Your task to perform on an android device: Clear the cart on newegg. Search for logitech g903 on newegg, select the first entry, and add it to the cart. Image 0: 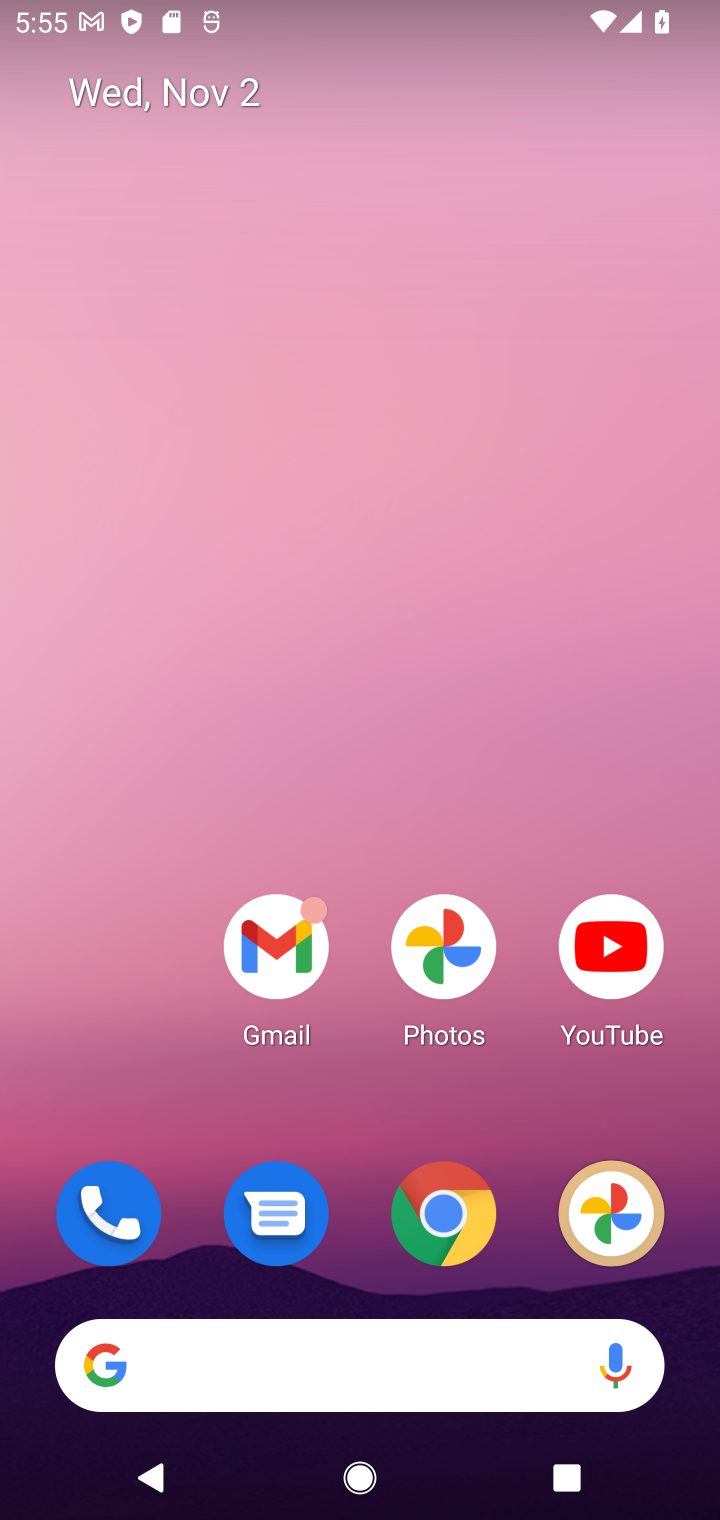
Step 0: click (442, 1216)
Your task to perform on an android device: Clear the cart on newegg. Search for logitech g903 on newegg, select the first entry, and add it to the cart. Image 1: 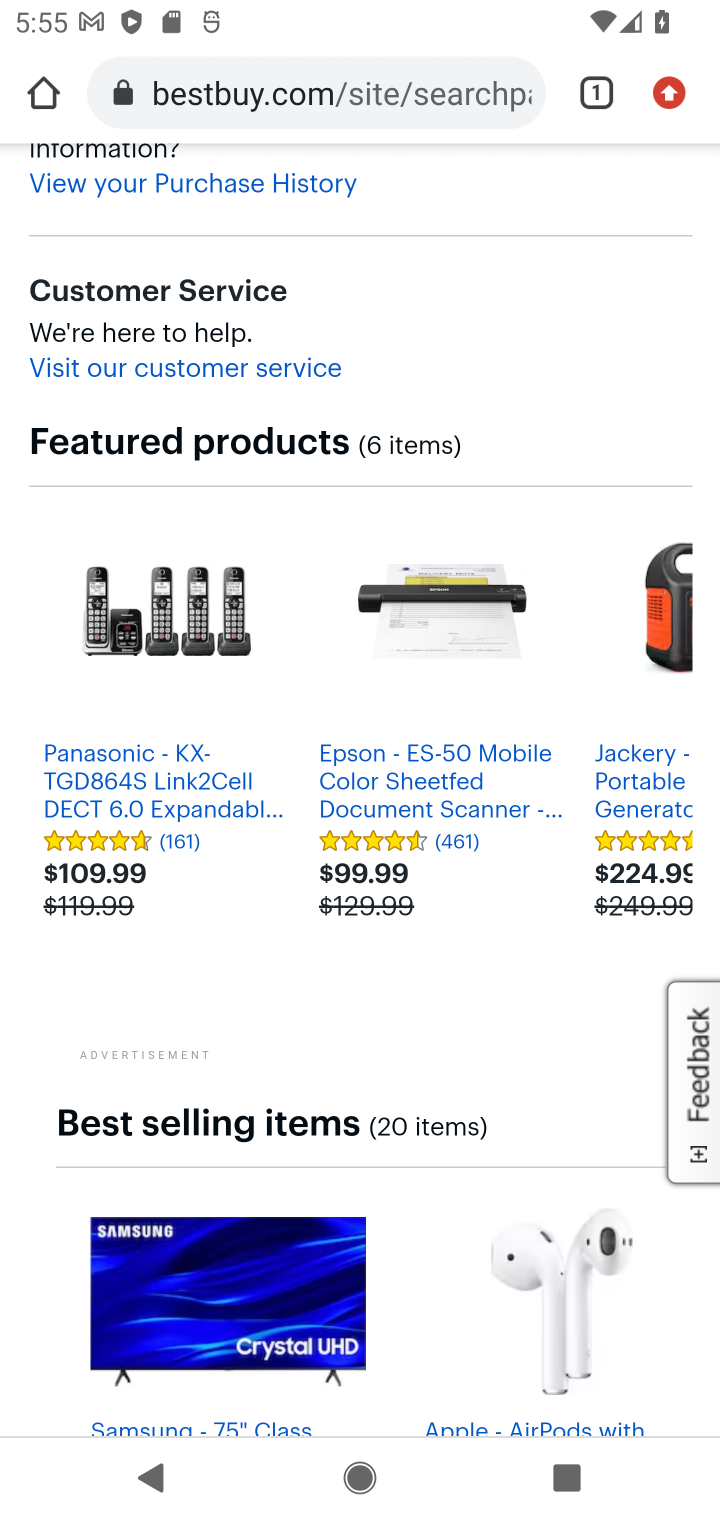
Step 1: click (354, 54)
Your task to perform on an android device: Clear the cart on newegg. Search for logitech g903 on newegg, select the first entry, and add it to the cart. Image 2: 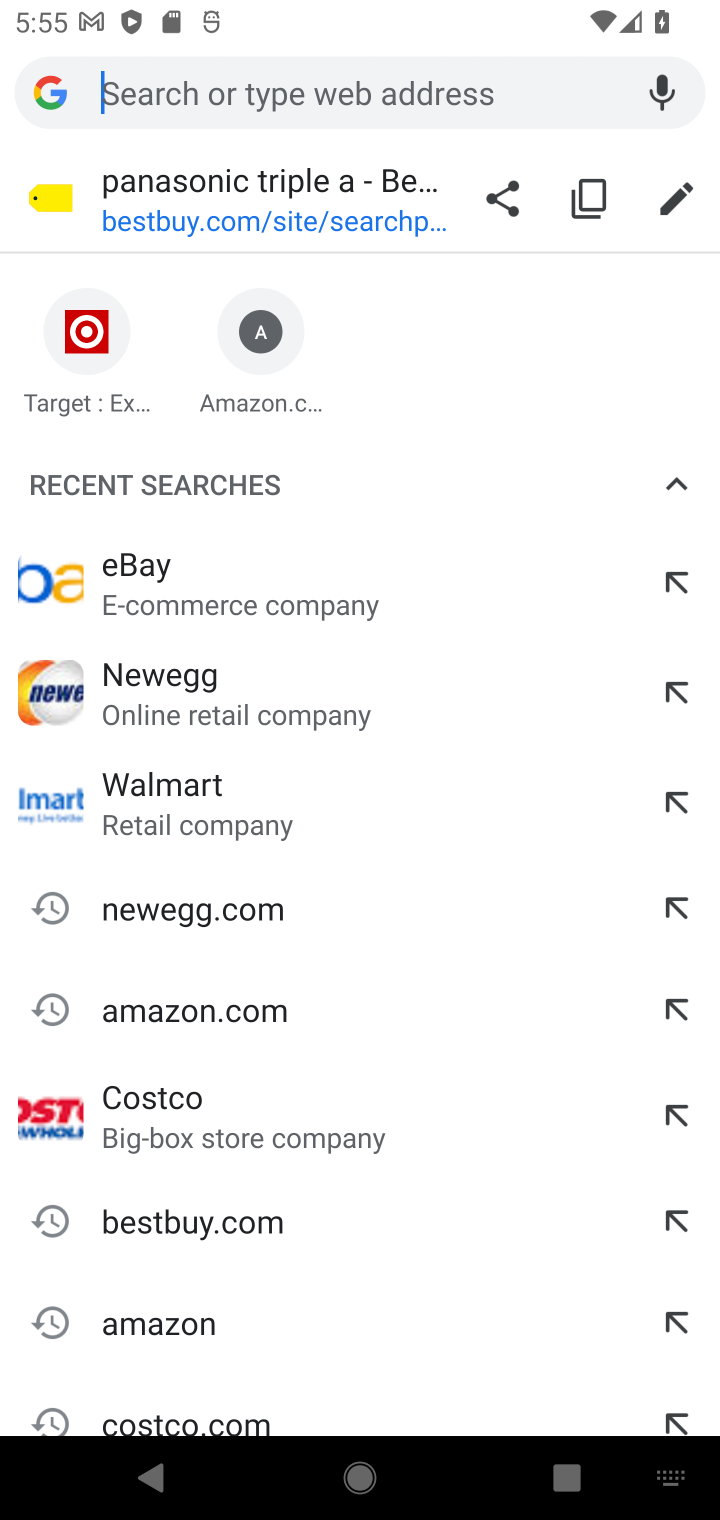
Step 2: click (171, 903)
Your task to perform on an android device: Clear the cart on newegg. Search for logitech g903 on newegg, select the first entry, and add it to the cart. Image 3: 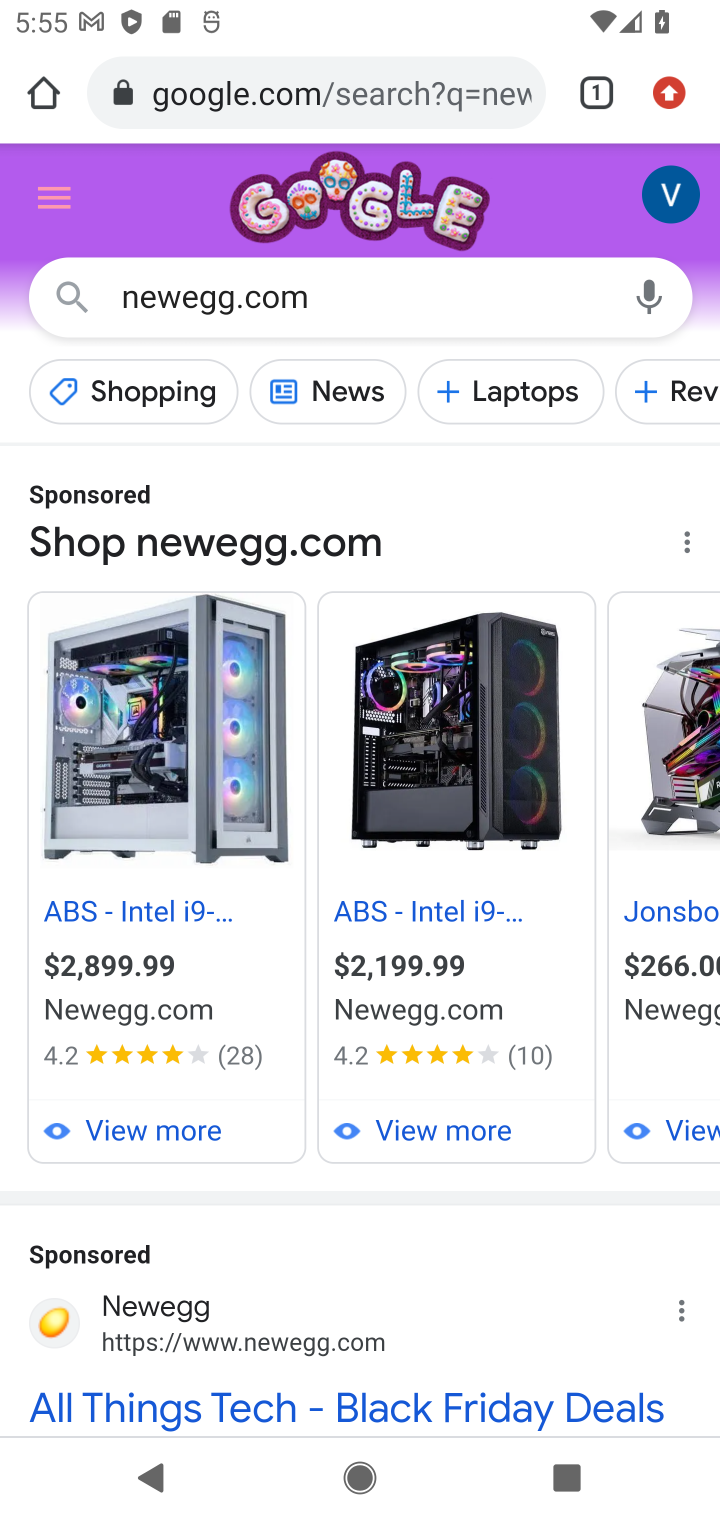
Step 3: drag from (374, 1236) to (365, 859)
Your task to perform on an android device: Clear the cart on newegg. Search for logitech g903 on newegg, select the first entry, and add it to the cart. Image 4: 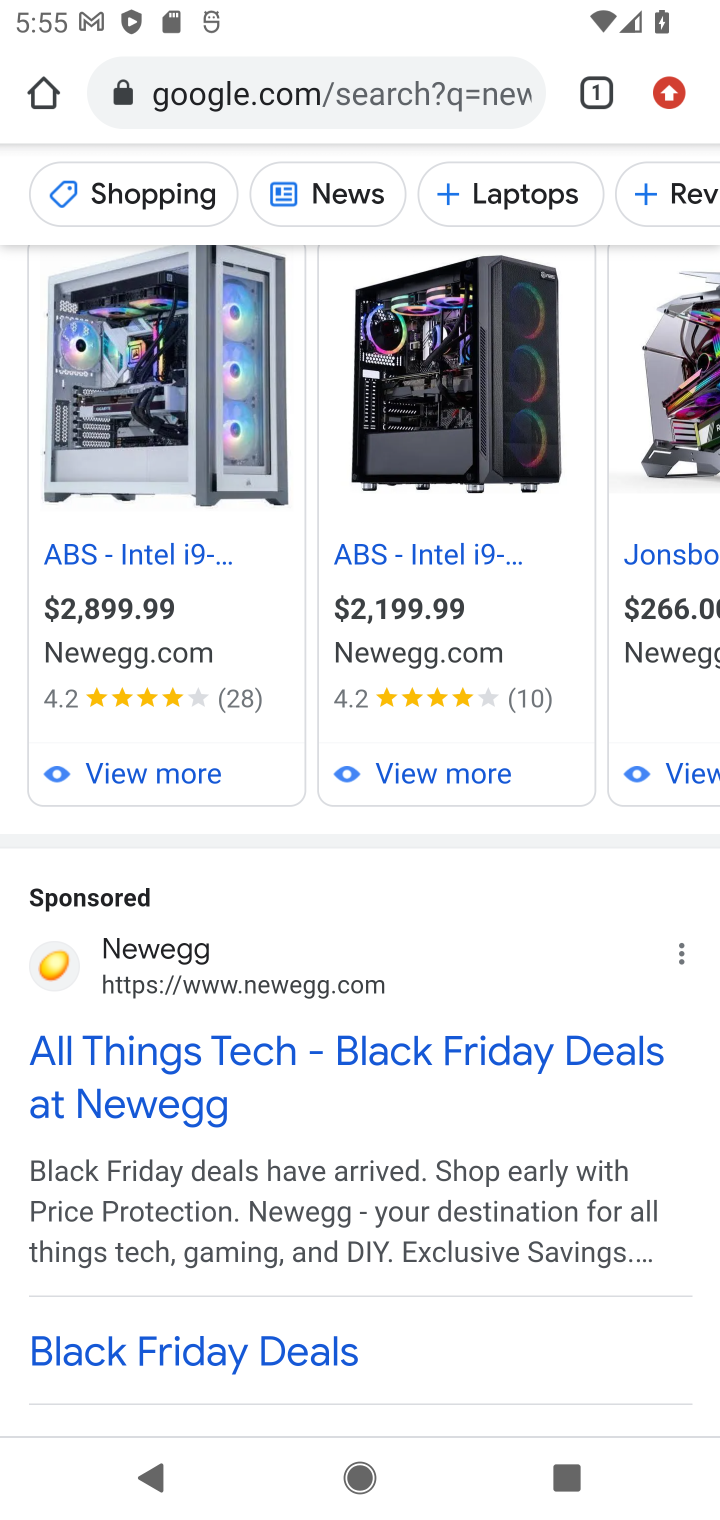
Step 4: click (113, 1068)
Your task to perform on an android device: Clear the cart on newegg. Search for logitech g903 on newegg, select the first entry, and add it to the cart. Image 5: 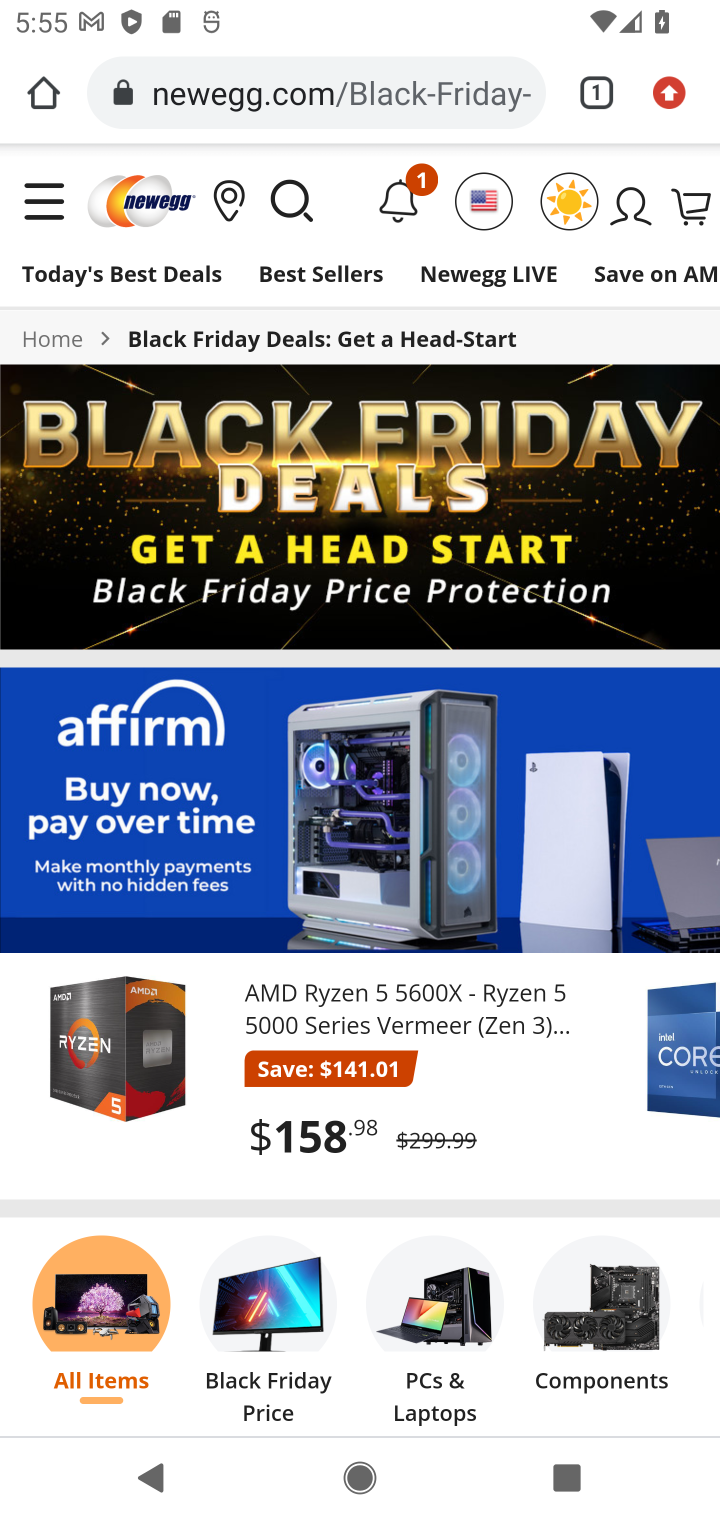
Step 5: click (692, 216)
Your task to perform on an android device: Clear the cart on newegg. Search for logitech g903 on newegg, select the first entry, and add it to the cart. Image 6: 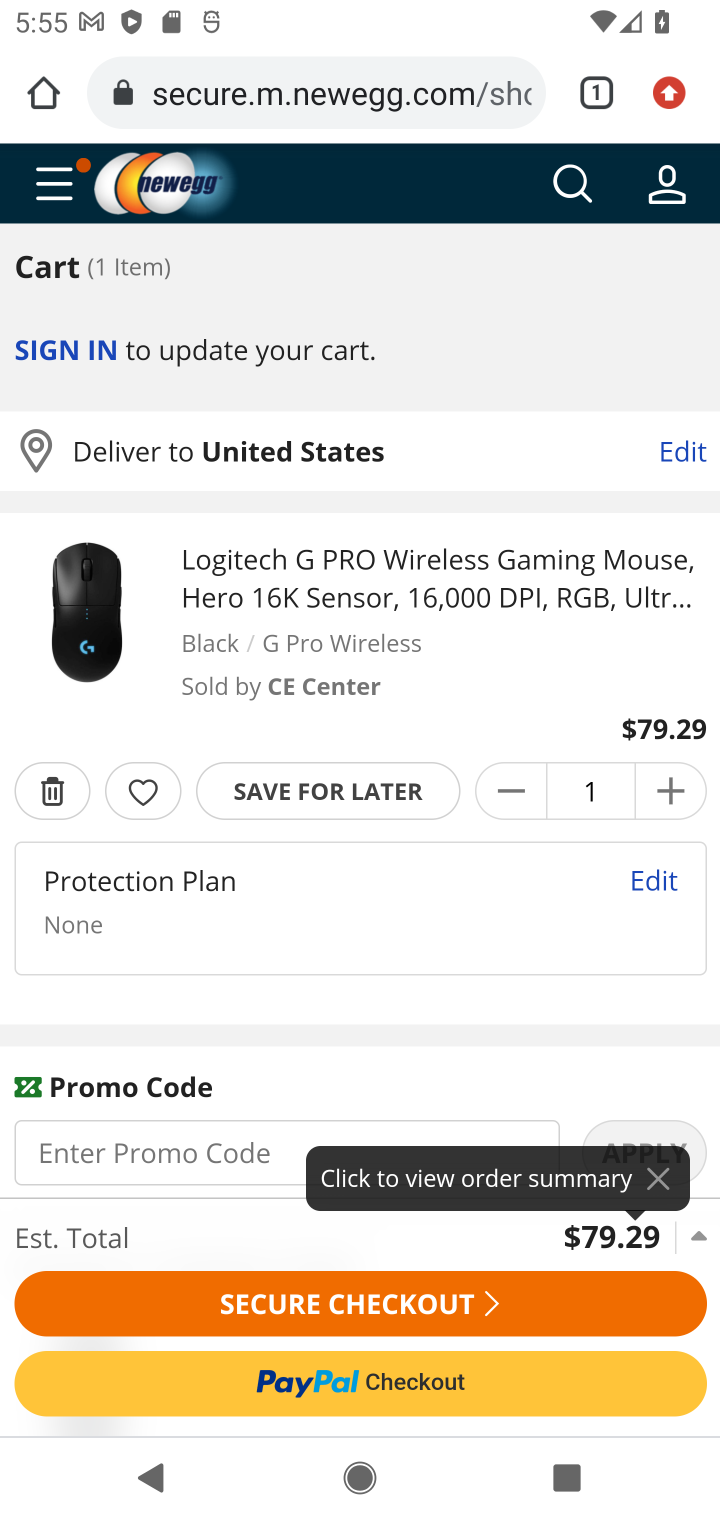
Step 6: click (42, 786)
Your task to perform on an android device: Clear the cart on newegg. Search for logitech g903 on newegg, select the first entry, and add it to the cart. Image 7: 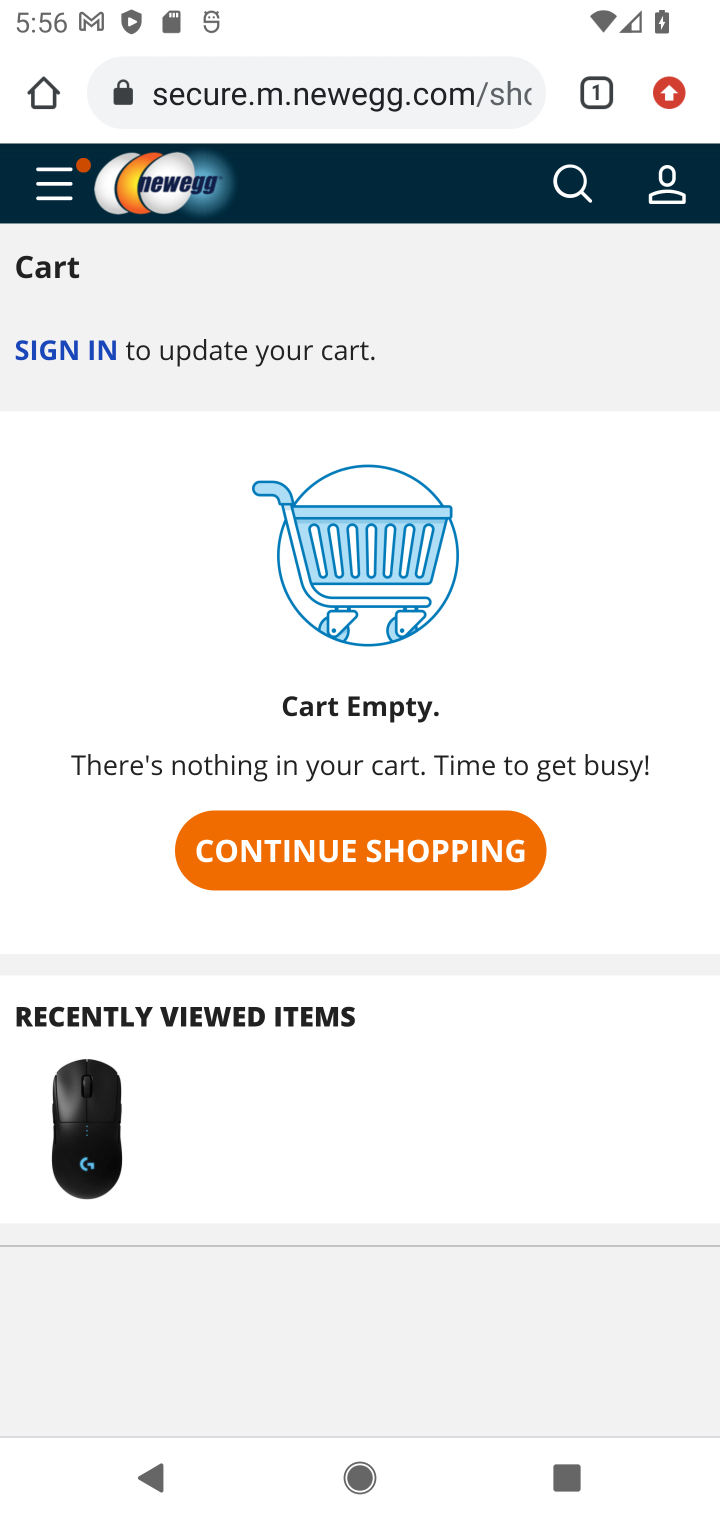
Step 7: click (579, 188)
Your task to perform on an android device: Clear the cart on newegg. Search for logitech g903 on newegg, select the first entry, and add it to the cart. Image 8: 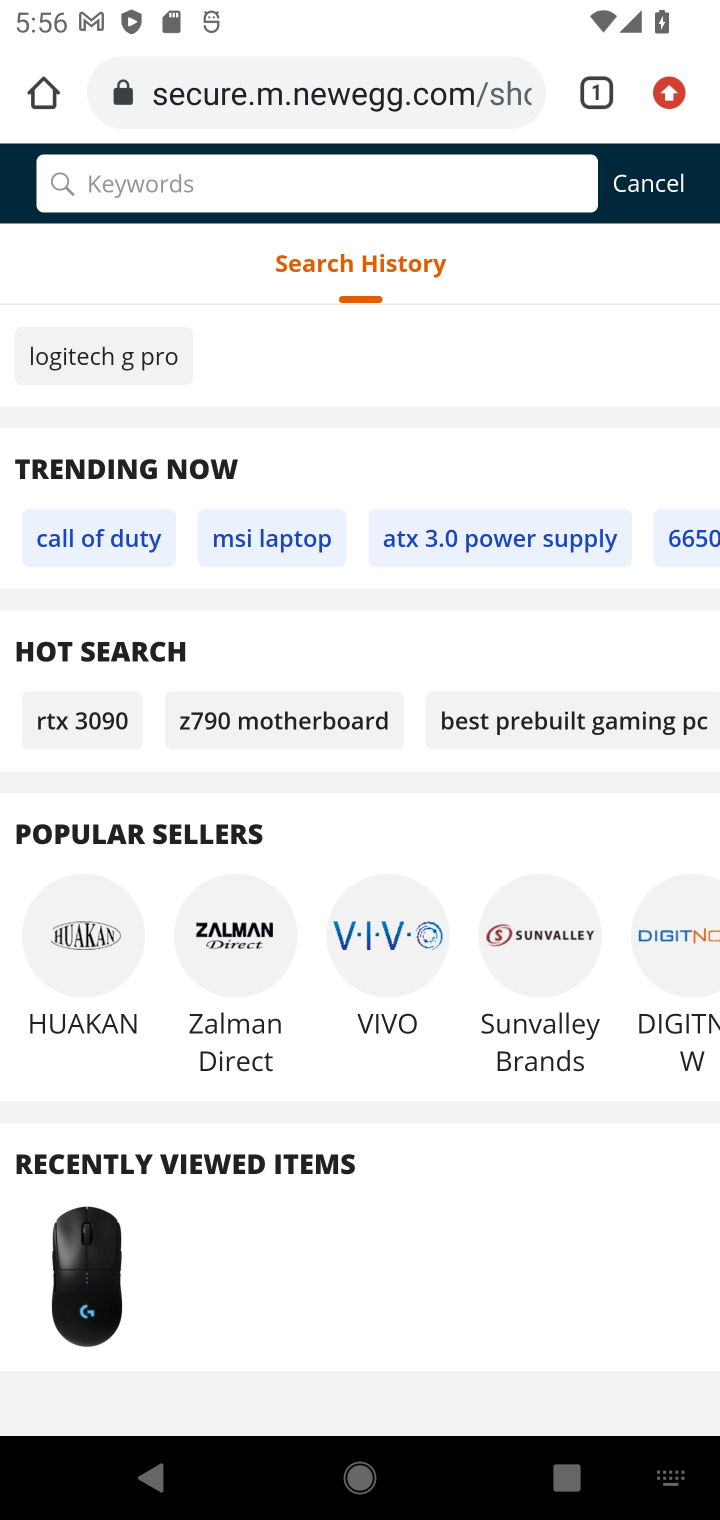
Step 8: type "logitech g903"
Your task to perform on an android device: Clear the cart on newegg. Search for logitech g903 on newegg, select the first entry, and add it to the cart. Image 9: 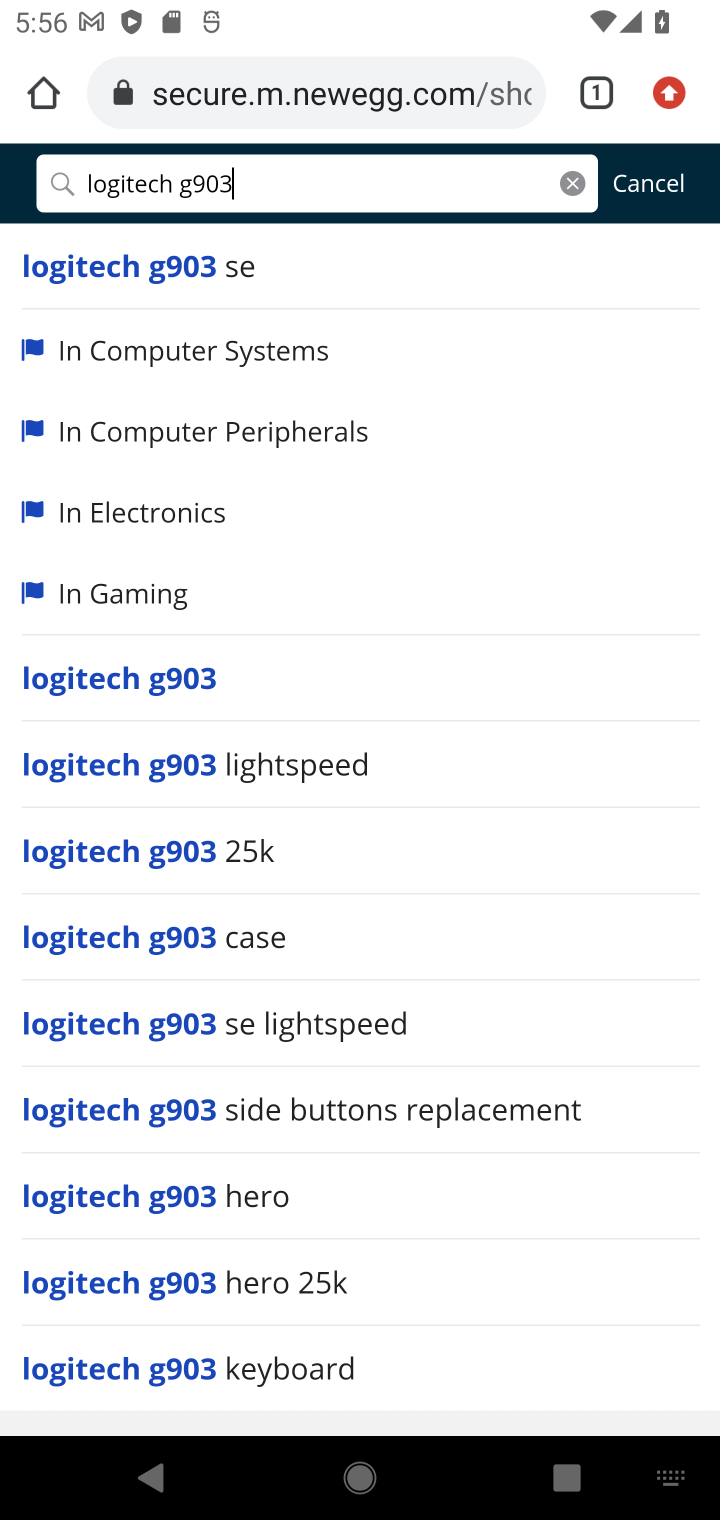
Step 9: click (131, 281)
Your task to perform on an android device: Clear the cart on newegg. Search for logitech g903 on newegg, select the first entry, and add it to the cart. Image 10: 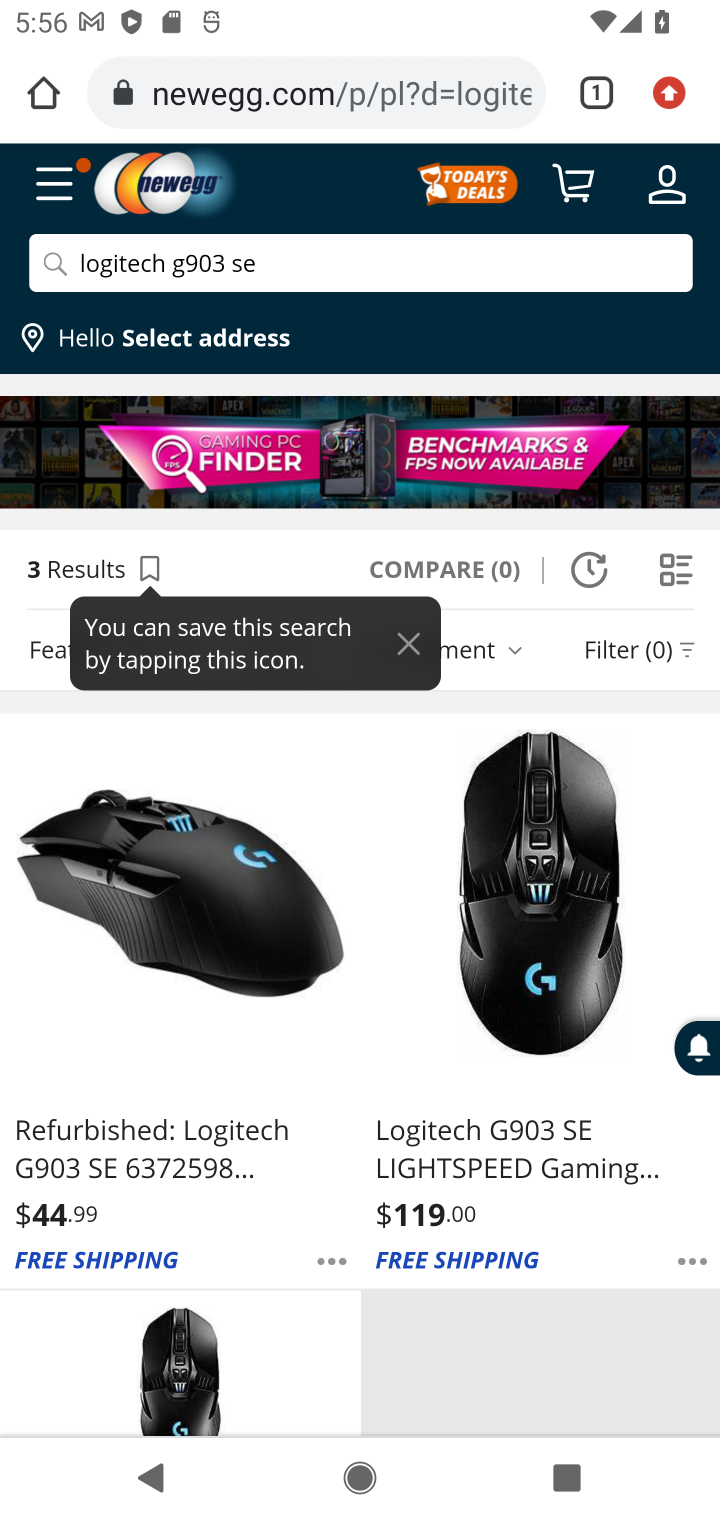
Step 10: click (454, 1155)
Your task to perform on an android device: Clear the cart on newegg. Search for logitech g903 on newegg, select the first entry, and add it to the cart. Image 11: 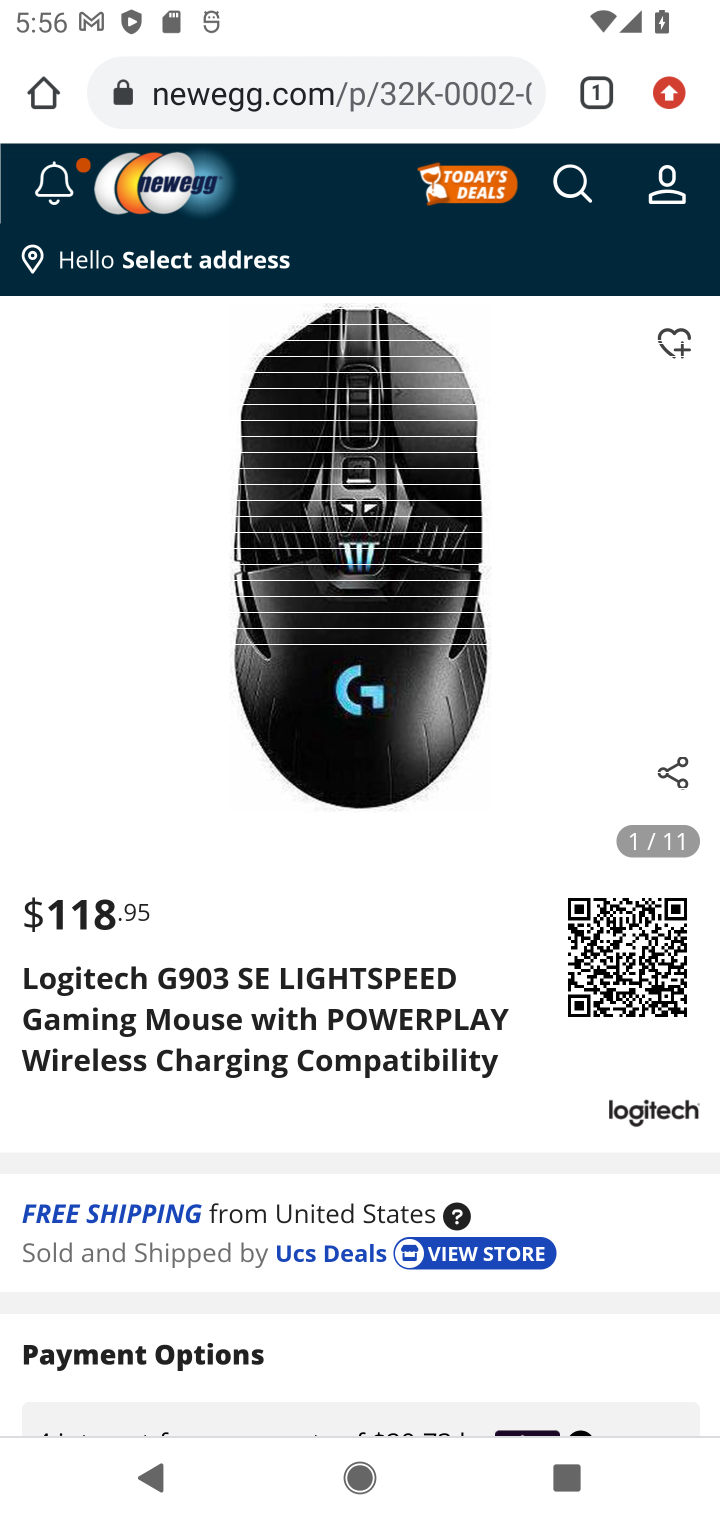
Step 11: click (332, 1388)
Your task to perform on an android device: Clear the cart on newegg. Search for logitech g903 on newegg, select the first entry, and add it to the cart. Image 12: 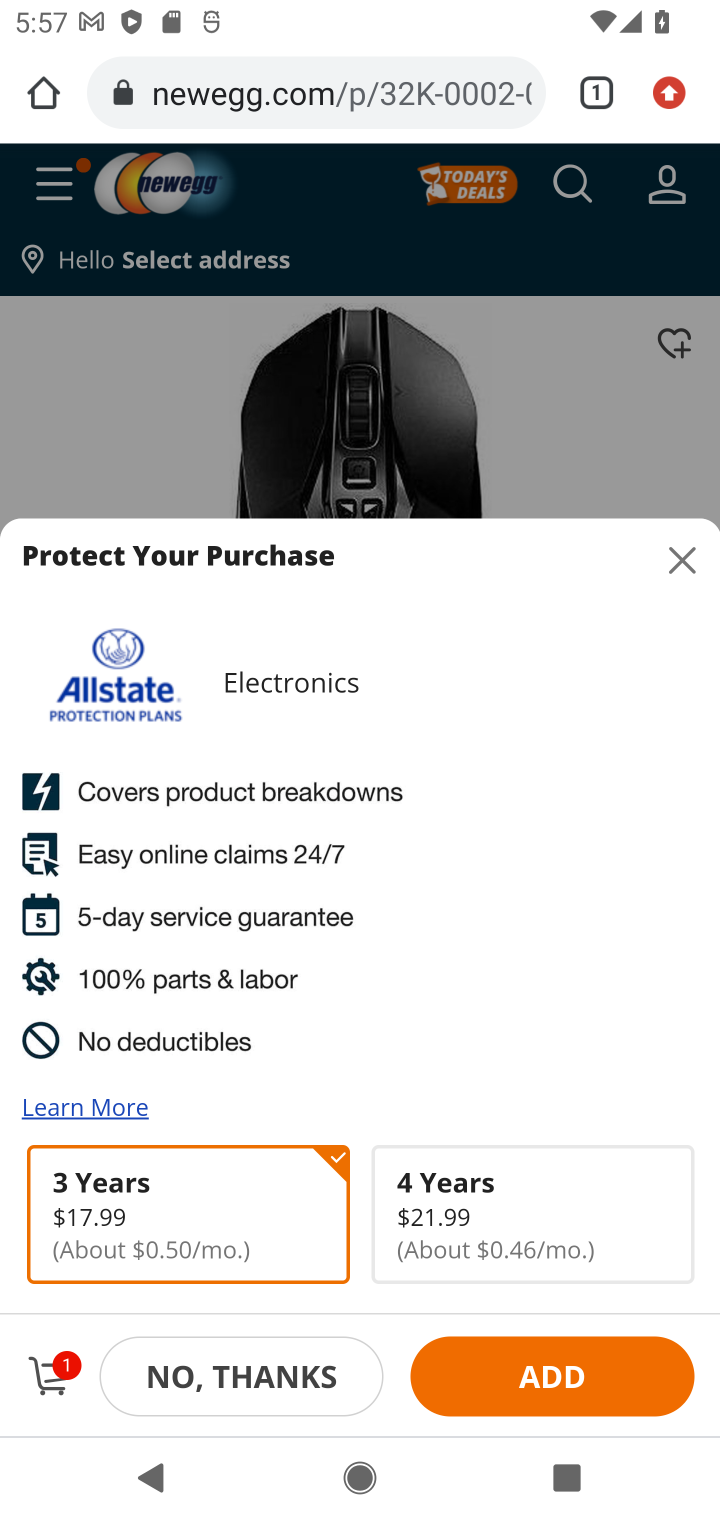
Step 12: task complete